Your task to perform on an android device: turn on location history Image 0: 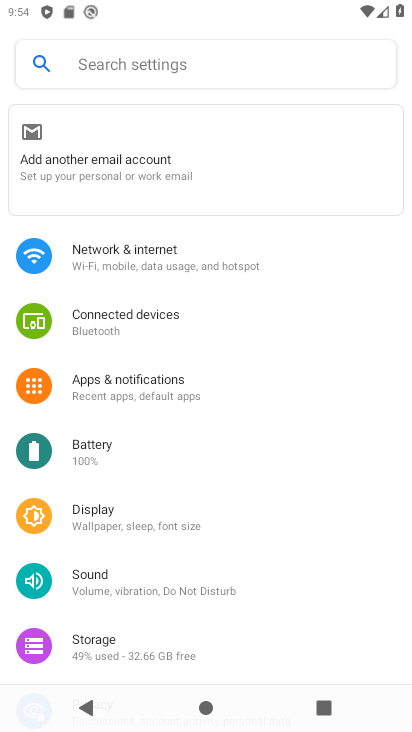
Step 0: drag from (321, 584) to (257, 228)
Your task to perform on an android device: turn on location history Image 1: 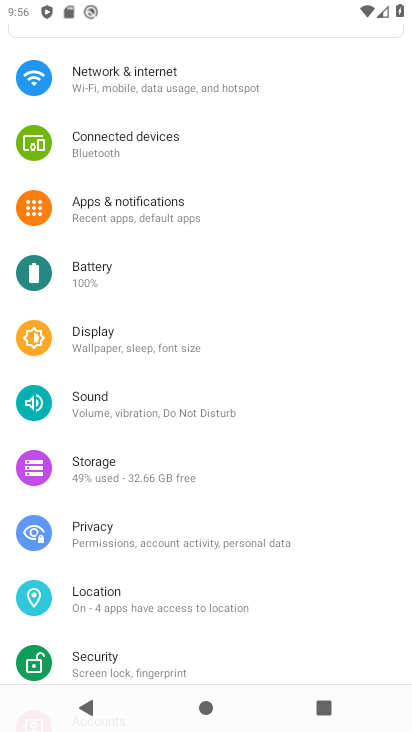
Step 1: click (138, 605)
Your task to perform on an android device: turn on location history Image 2: 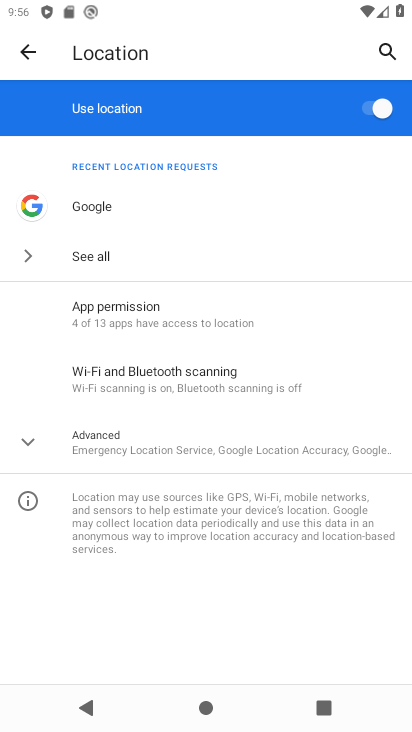
Step 2: click (105, 438)
Your task to perform on an android device: turn on location history Image 3: 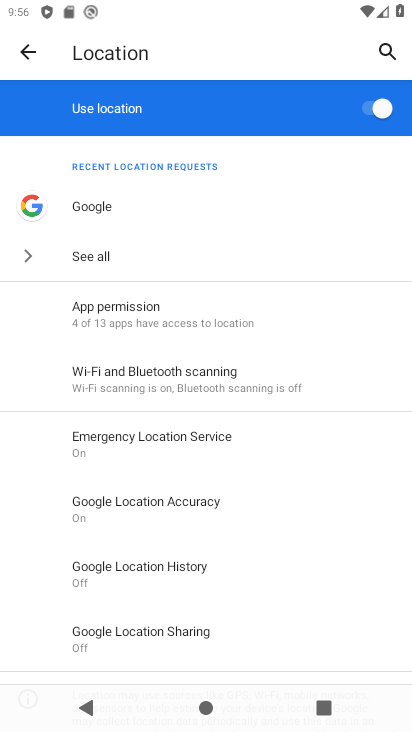
Step 3: click (124, 570)
Your task to perform on an android device: turn on location history Image 4: 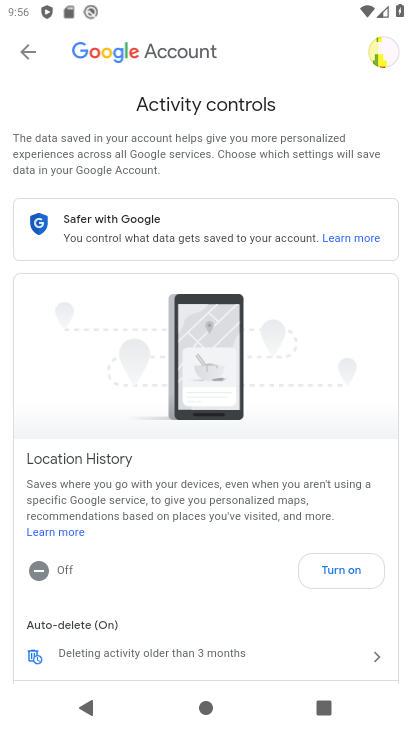
Step 4: click (335, 568)
Your task to perform on an android device: turn on location history Image 5: 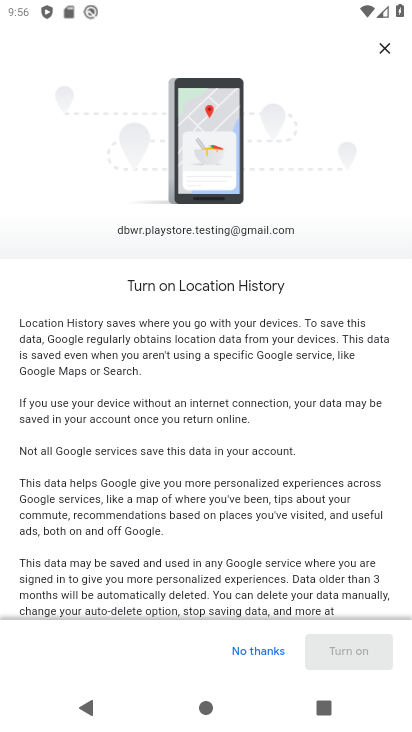
Step 5: drag from (332, 591) to (319, 2)
Your task to perform on an android device: turn on location history Image 6: 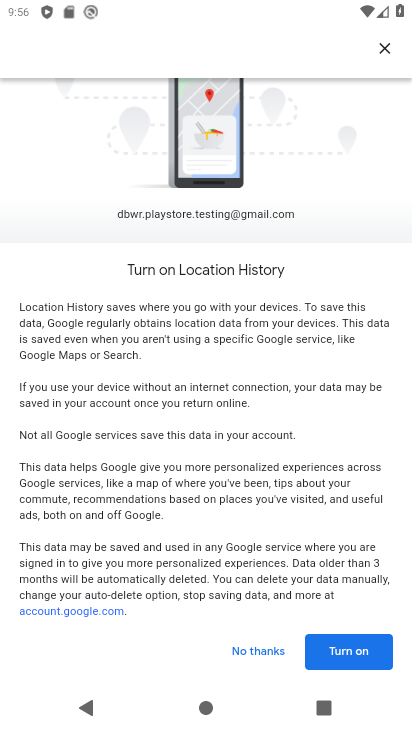
Step 6: click (349, 651)
Your task to perform on an android device: turn on location history Image 7: 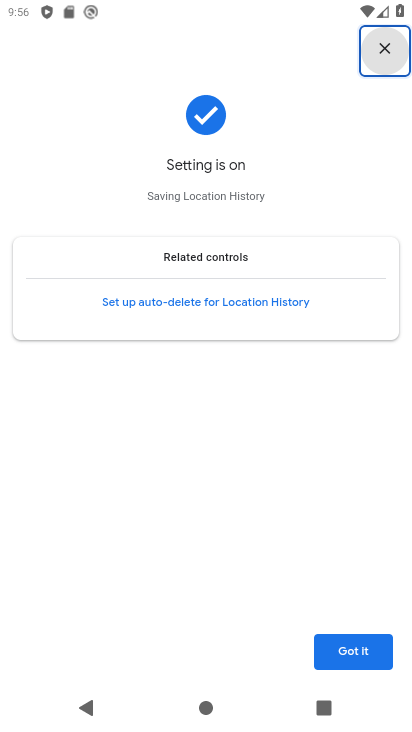
Step 7: click (354, 642)
Your task to perform on an android device: turn on location history Image 8: 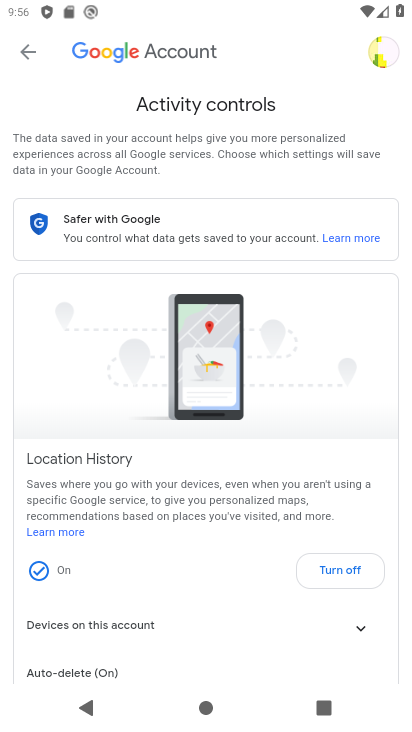
Step 8: task complete